Your task to perform on an android device: change the upload size in google photos Image 0: 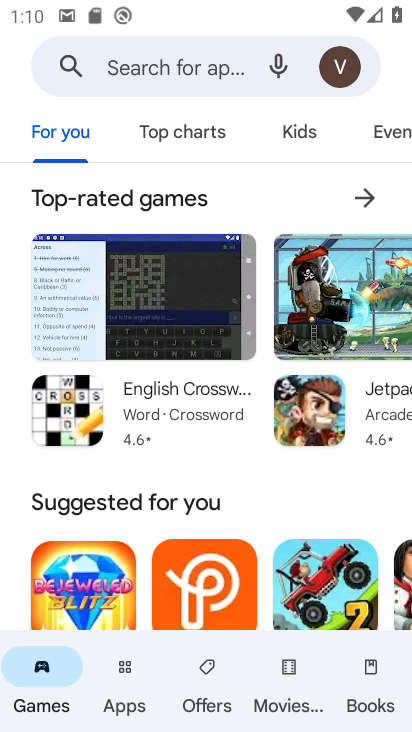
Step 0: press home button
Your task to perform on an android device: change the upload size in google photos Image 1: 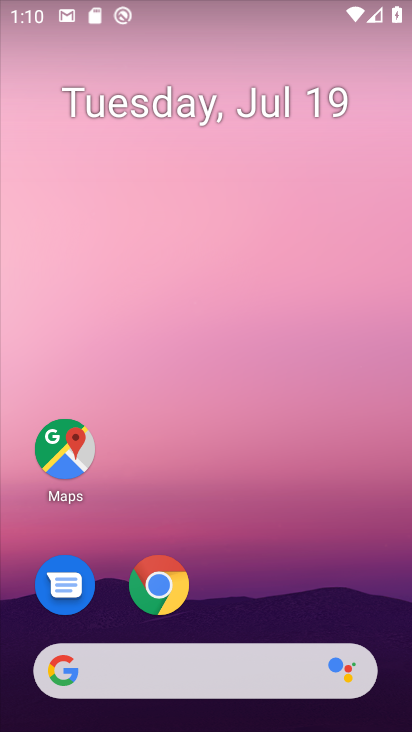
Step 1: drag from (273, 620) to (297, 55)
Your task to perform on an android device: change the upload size in google photos Image 2: 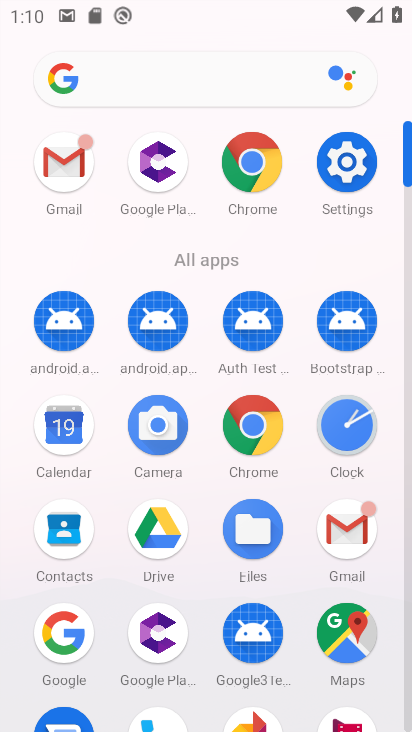
Step 2: drag from (203, 570) to (243, 150)
Your task to perform on an android device: change the upload size in google photos Image 3: 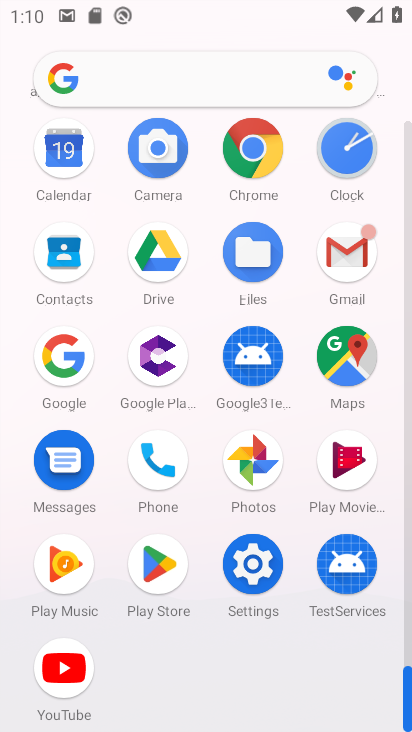
Step 3: click (241, 455)
Your task to perform on an android device: change the upload size in google photos Image 4: 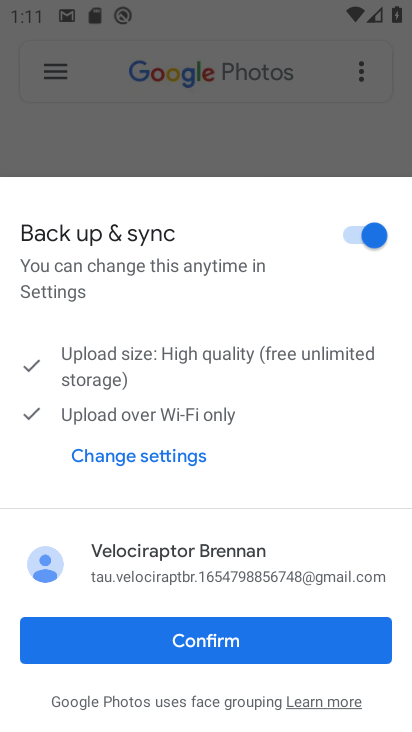
Step 4: click (230, 642)
Your task to perform on an android device: change the upload size in google photos Image 5: 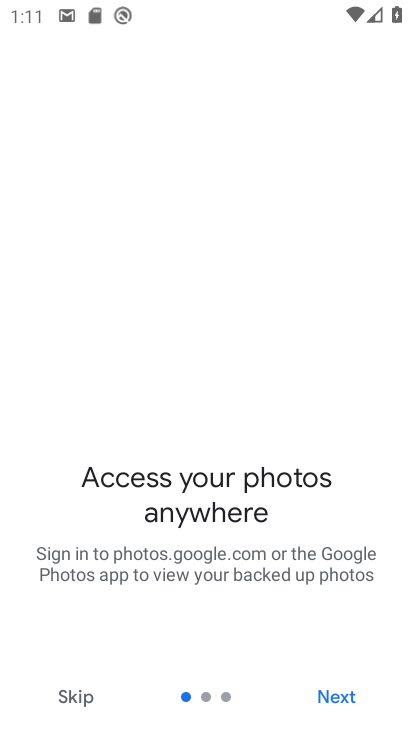
Step 5: click (332, 690)
Your task to perform on an android device: change the upload size in google photos Image 6: 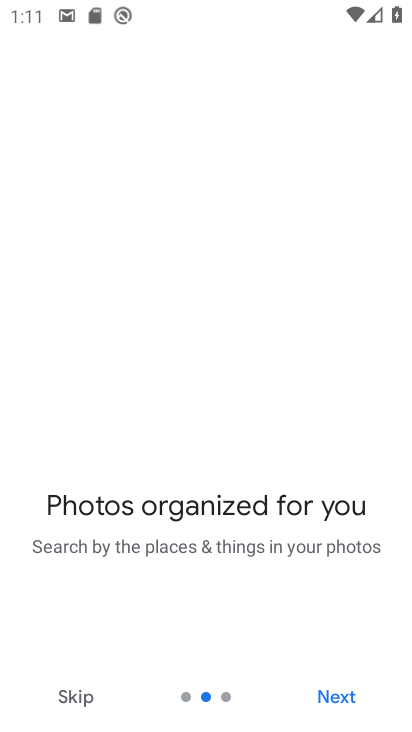
Step 6: click (332, 689)
Your task to perform on an android device: change the upload size in google photos Image 7: 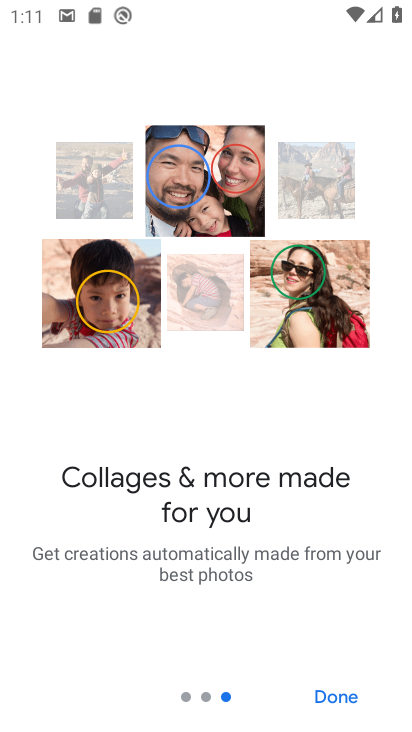
Step 7: click (332, 689)
Your task to perform on an android device: change the upload size in google photos Image 8: 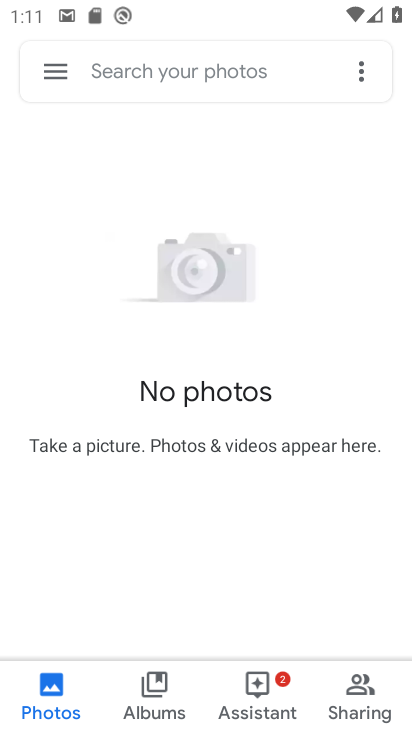
Step 8: click (360, 70)
Your task to perform on an android device: change the upload size in google photos Image 9: 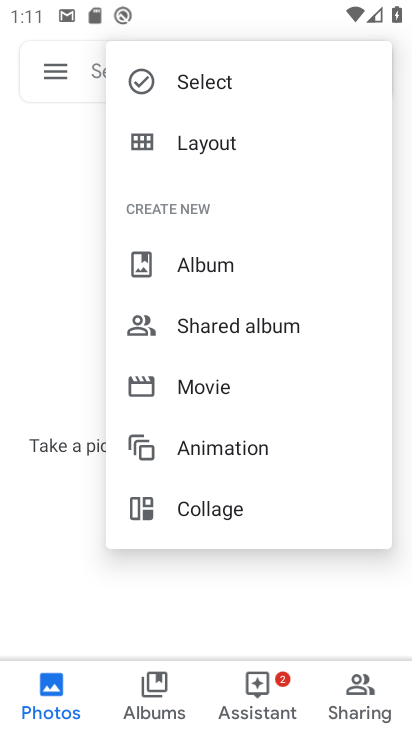
Step 9: drag from (266, 441) to (300, 233)
Your task to perform on an android device: change the upload size in google photos Image 10: 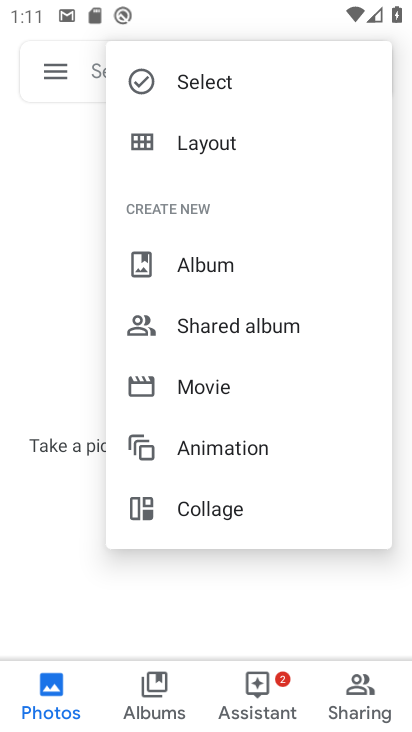
Step 10: click (98, 538)
Your task to perform on an android device: change the upload size in google photos Image 11: 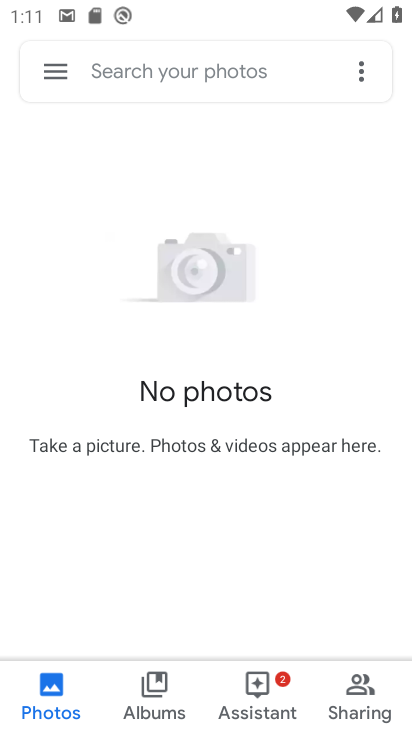
Step 11: click (59, 71)
Your task to perform on an android device: change the upload size in google photos Image 12: 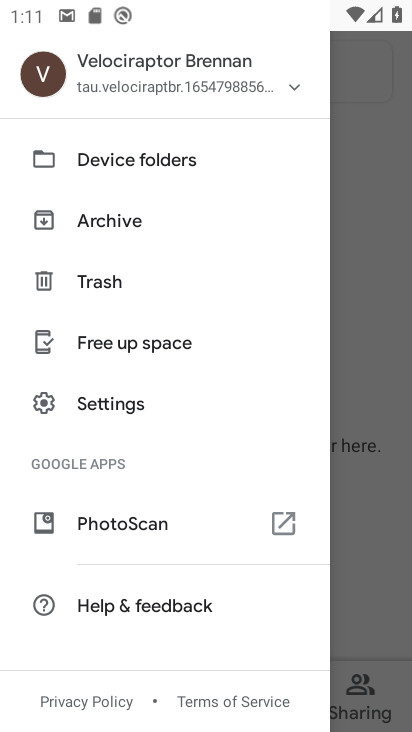
Step 12: click (83, 395)
Your task to perform on an android device: change the upload size in google photos Image 13: 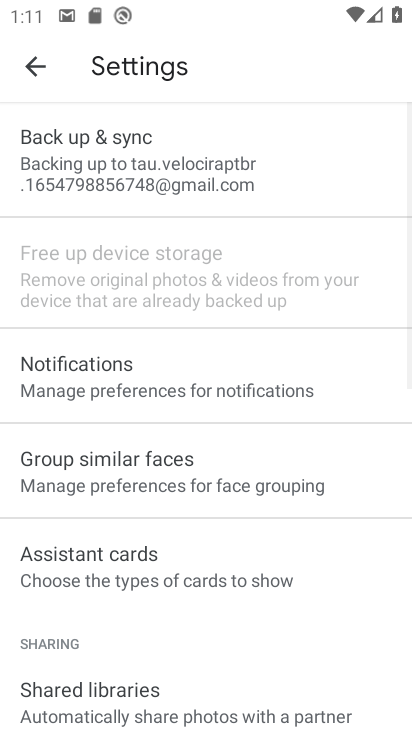
Step 13: click (224, 163)
Your task to perform on an android device: change the upload size in google photos Image 14: 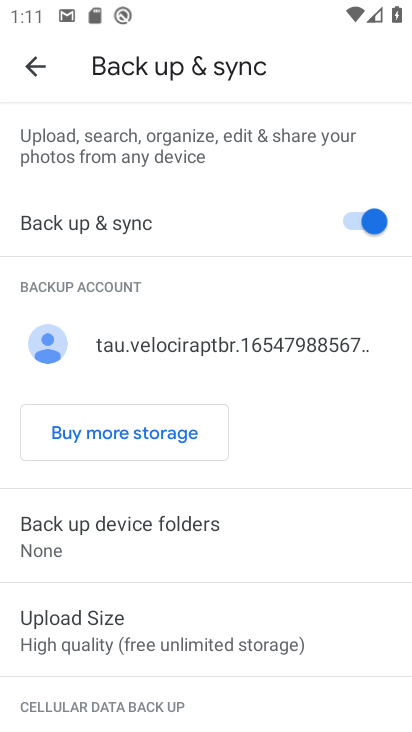
Step 14: click (160, 615)
Your task to perform on an android device: change the upload size in google photos Image 15: 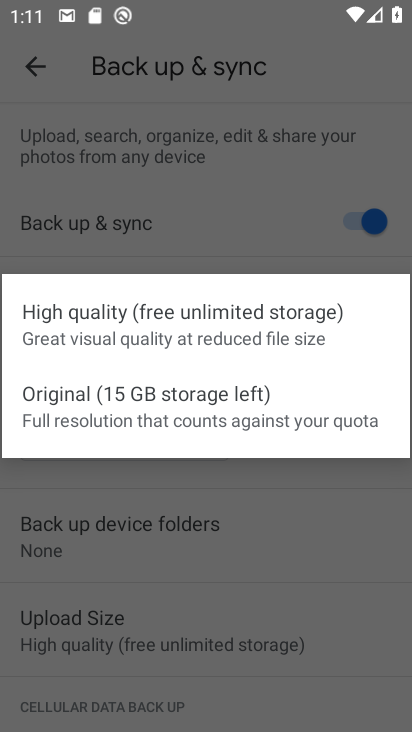
Step 15: click (239, 413)
Your task to perform on an android device: change the upload size in google photos Image 16: 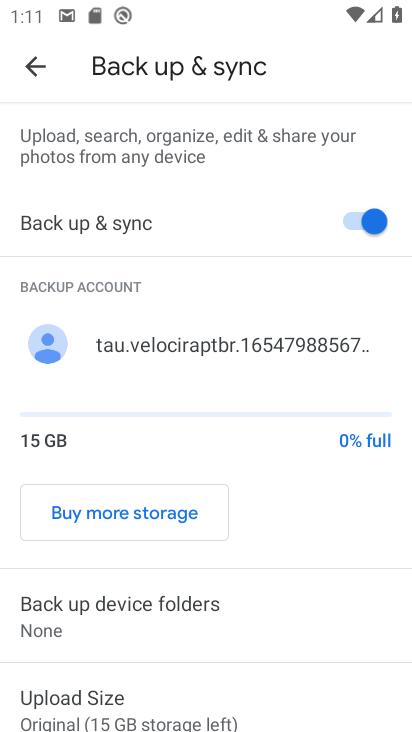
Step 16: task complete